Your task to perform on an android device: Open wifi settings Image 0: 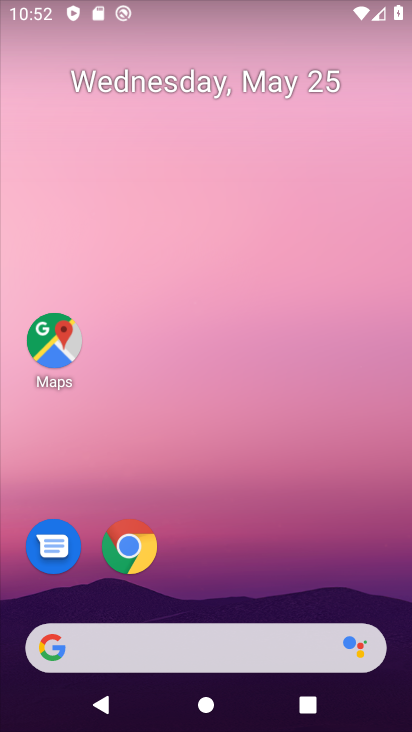
Step 0: drag from (362, 582) to (312, 85)
Your task to perform on an android device: Open wifi settings Image 1: 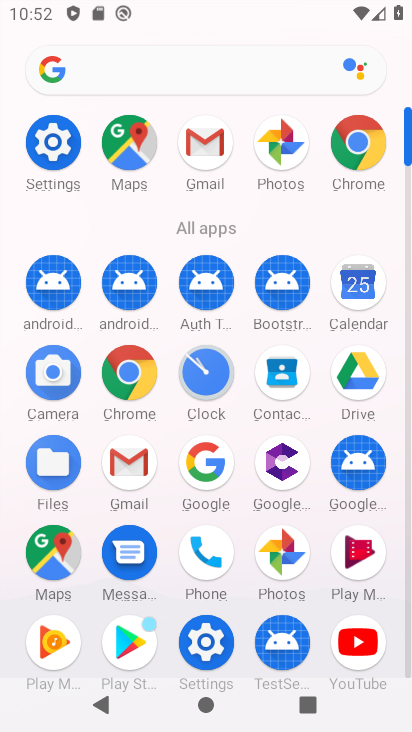
Step 1: click (207, 651)
Your task to perform on an android device: Open wifi settings Image 2: 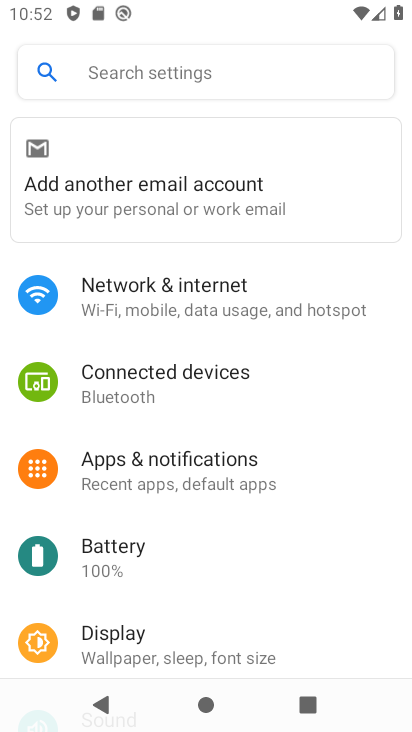
Step 2: click (287, 292)
Your task to perform on an android device: Open wifi settings Image 3: 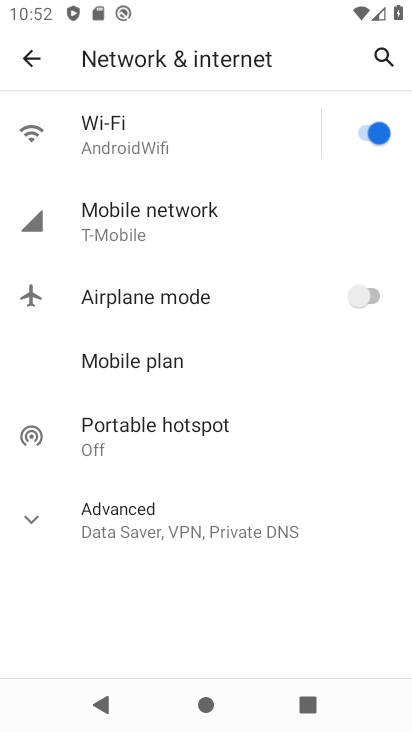
Step 3: task complete